Your task to perform on an android device: change text size in settings app Image 0: 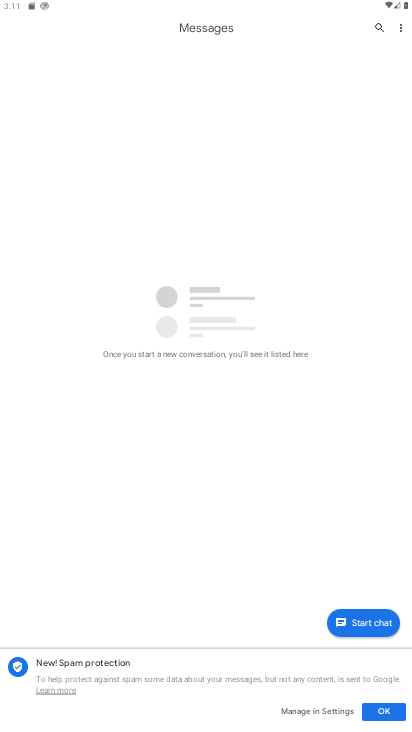
Step 0: press home button
Your task to perform on an android device: change text size in settings app Image 1: 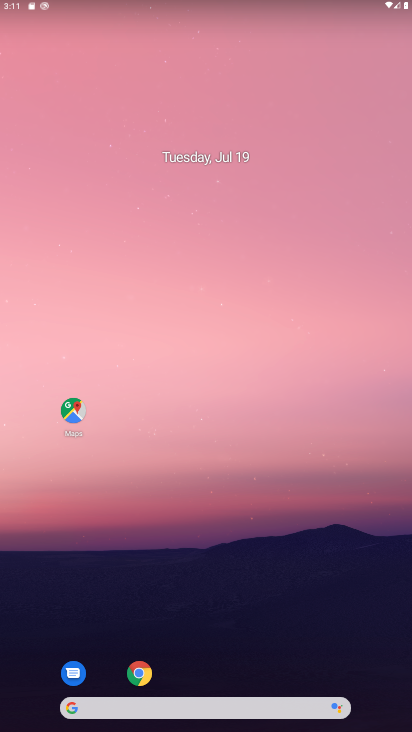
Step 1: drag from (230, 651) to (247, 47)
Your task to perform on an android device: change text size in settings app Image 2: 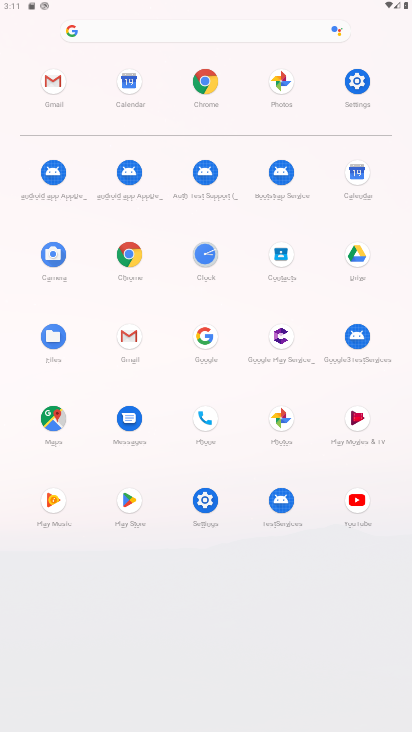
Step 2: click (201, 496)
Your task to perform on an android device: change text size in settings app Image 3: 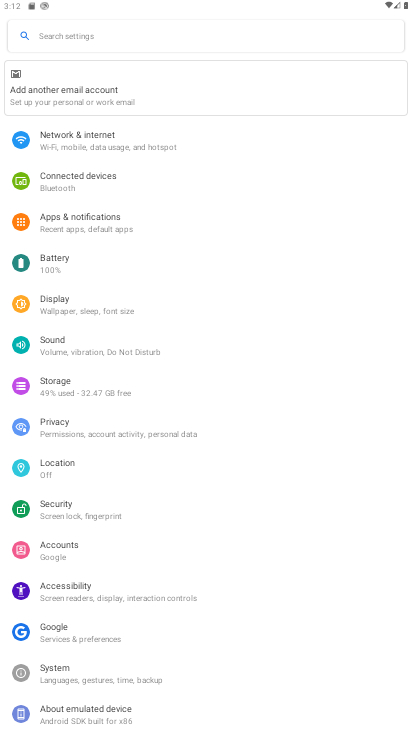
Step 3: click (72, 305)
Your task to perform on an android device: change text size in settings app Image 4: 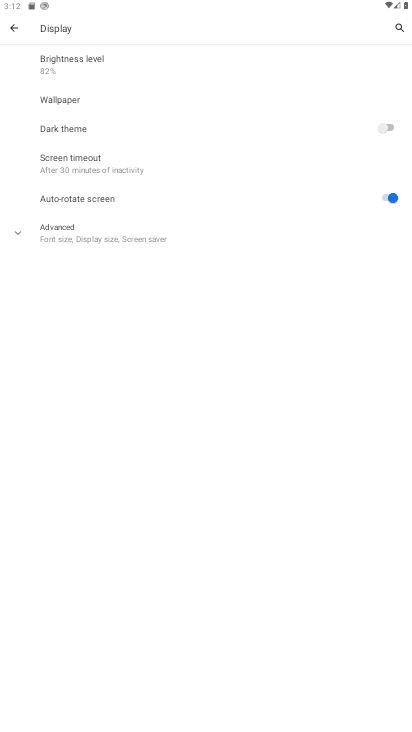
Step 4: click (91, 243)
Your task to perform on an android device: change text size in settings app Image 5: 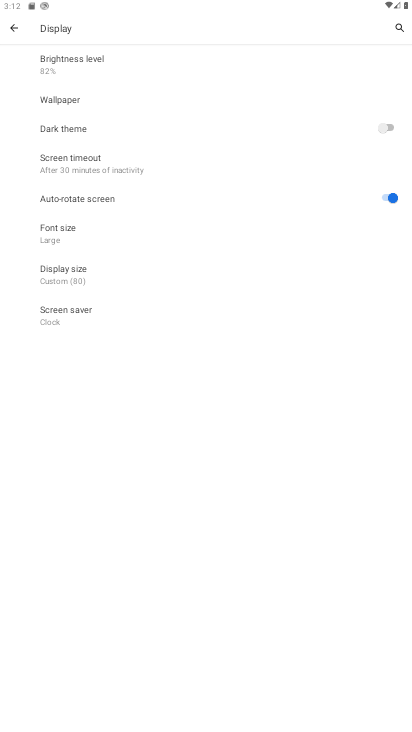
Step 5: click (59, 234)
Your task to perform on an android device: change text size in settings app Image 6: 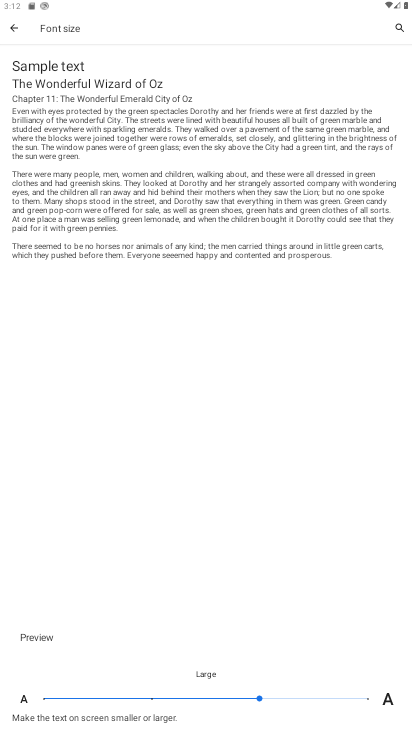
Step 6: click (366, 700)
Your task to perform on an android device: change text size in settings app Image 7: 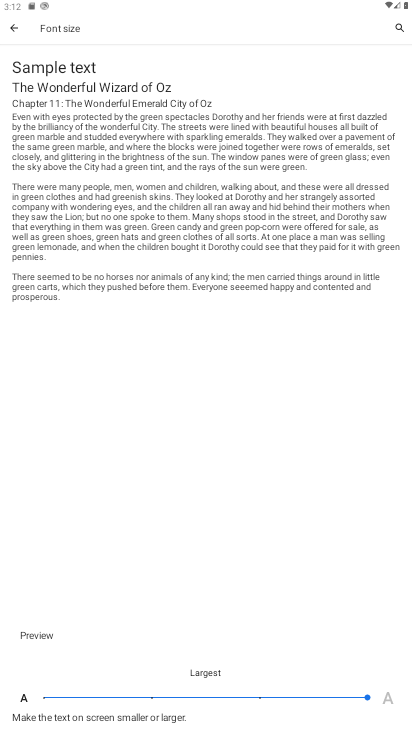
Step 7: task complete